Your task to perform on an android device: Is it going to rain tomorrow? Image 0: 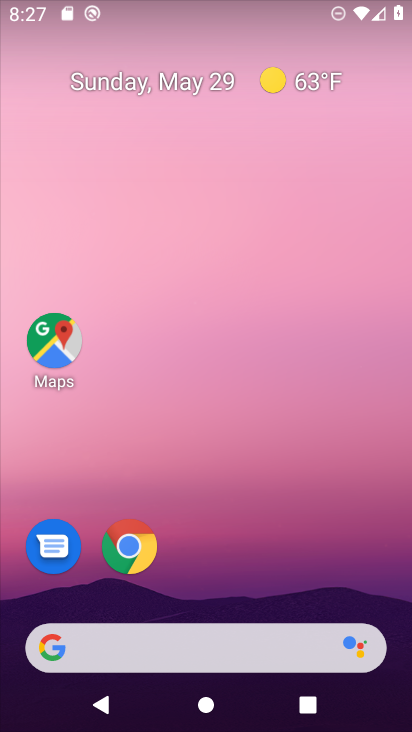
Step 0: press home button
Your task to perform on an android device: Is it going to rain tomorrow? Image 1: 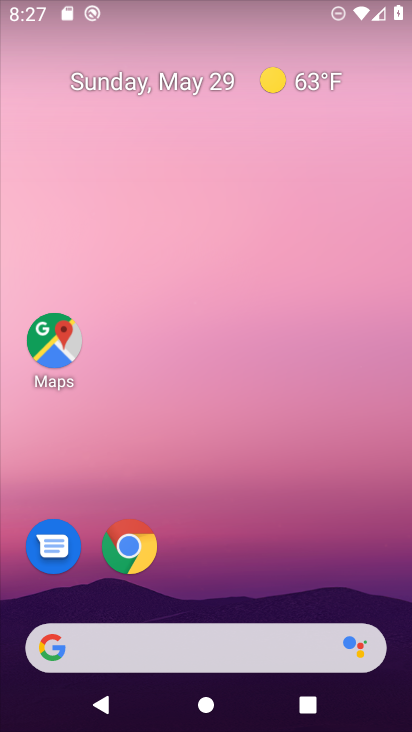
Step 1: click (57, 651)
Your task to perform on an android device: Is it going to rain tomorrow? Image 2: 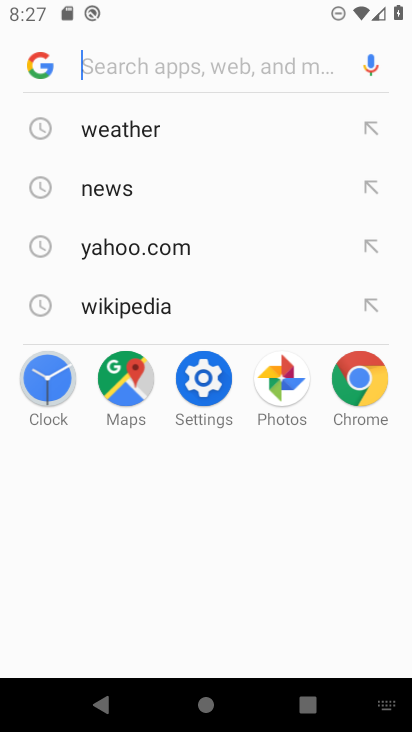
Step 2: click (145, 134)
Your task to perform on an android device: Is it going to rain tomorrow? Image 3: 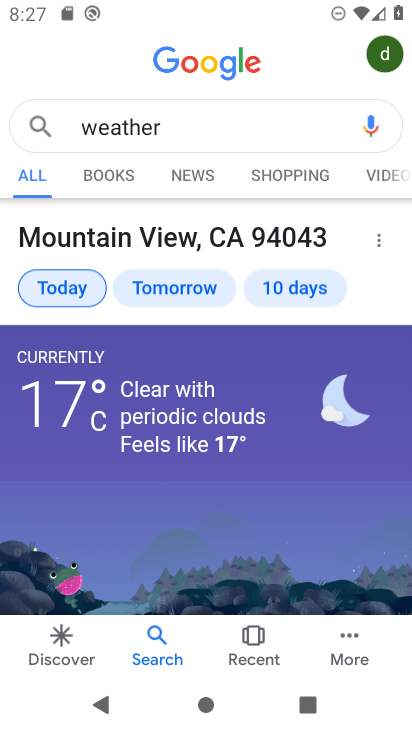
Step 3: click (155, 288)
Your task to perform on an android device: Is it going to rain tomorrow? Image 4: 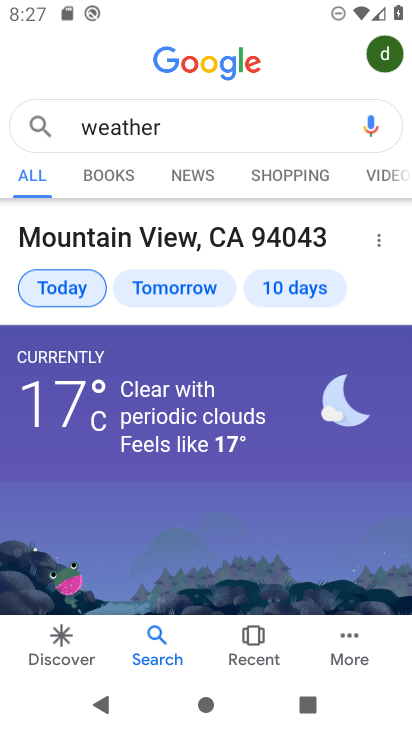
Step 4: click (178, 291)
Your task to perform on an android device: Is it going to rain tomorrow? Image 5: 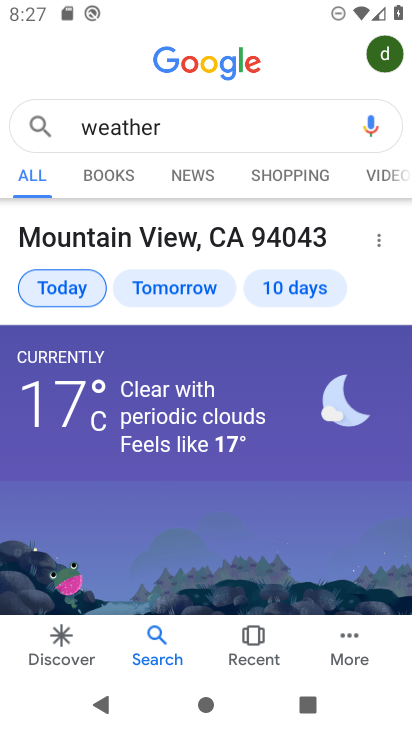
Step 5: click (185, 287)
Your task to perform on an android device: Is it going to rain tomorrow? Image 6: 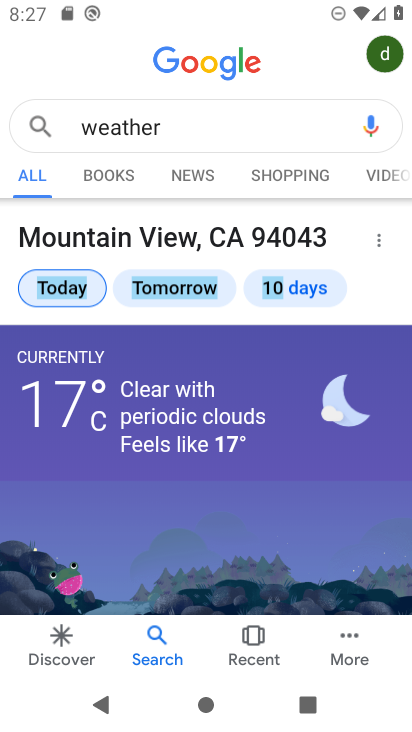
Step 6: click (185, 287)
Your task to perform on an android device: Is it going to rain tomorrow? Image 7: 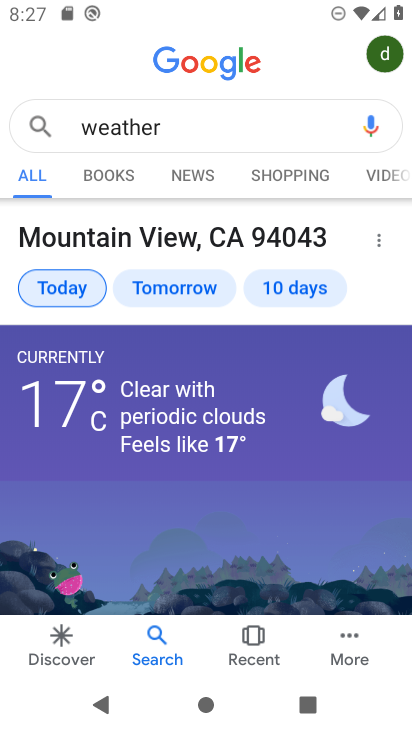
Step 7: drag from (99, 293) to (208, 287)
Your task to perform on an android device: Is it going to rain tomorrow? Image 8: 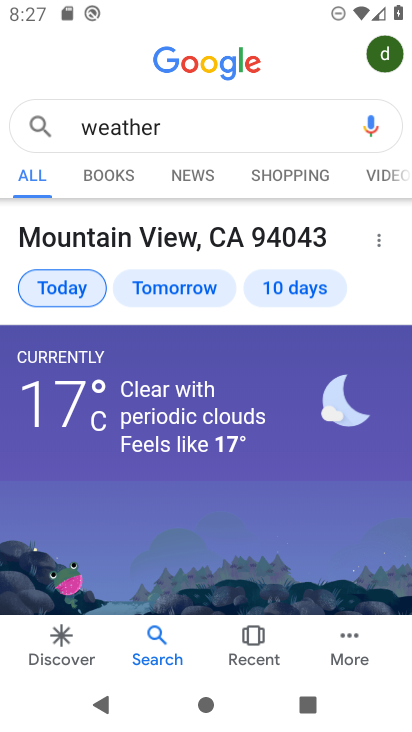
Step 8: click (213, 518)
Your task to perform on an android device: Is it going to rain tomorrow? Image 9: 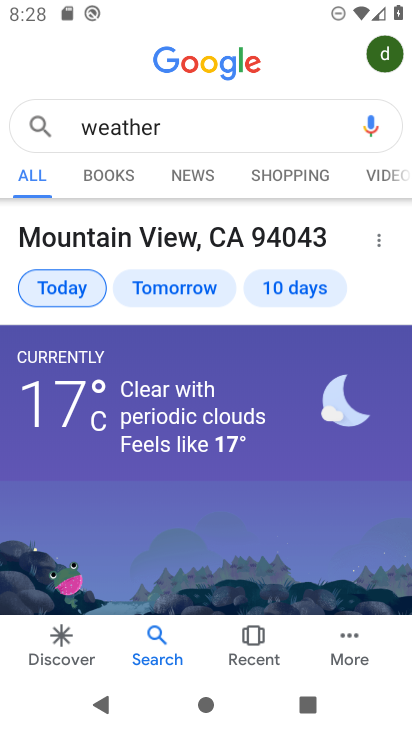
Step 9: click (39, 657)
Your task to perform on an android device: Is it going to rain tomorrow? Image 10: 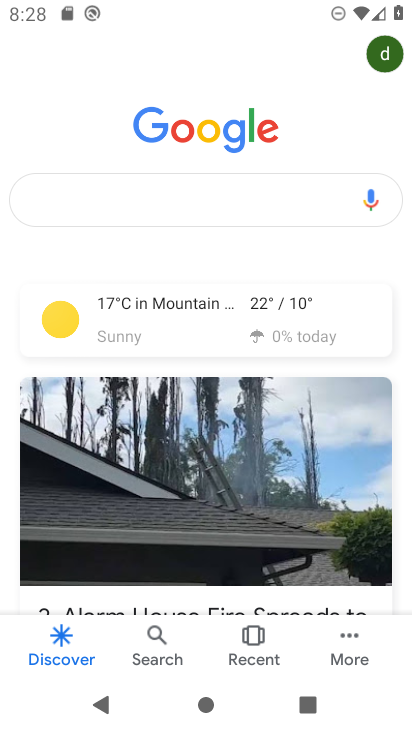
Step 10: click (266, 297)
Your task to perform on an android device: Is it going to rain tomorrow? Image 11: 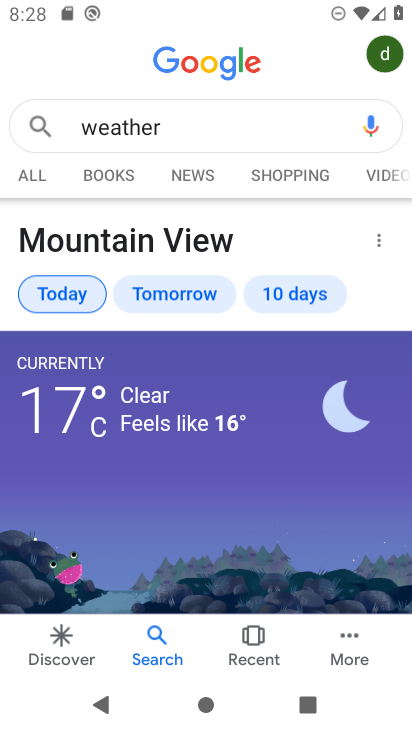
Step 11: click (190, 291)
Your task to perform on an android device: Is it going to rain tomorrow? Image 12: 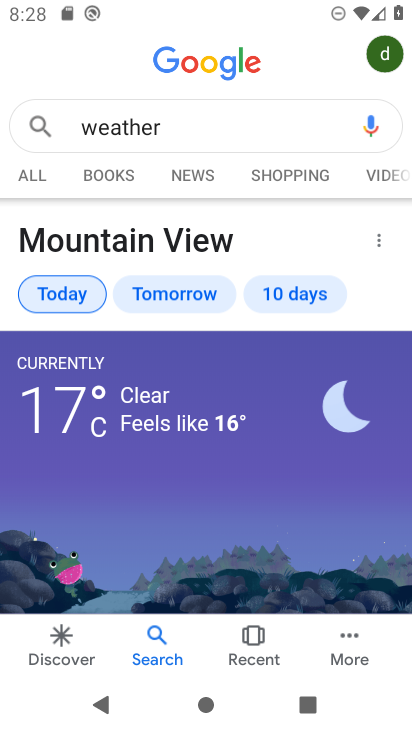
Step 12: click (190, 293)
Your task to perform on an android device: Is it going to rain tomorrow? Image 13: 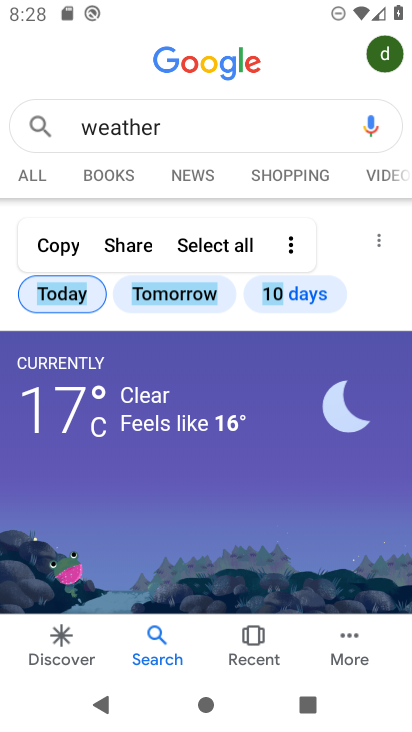
Step 13: task complete